Your task to perform on an android device: Open Wikipedia Image 0: 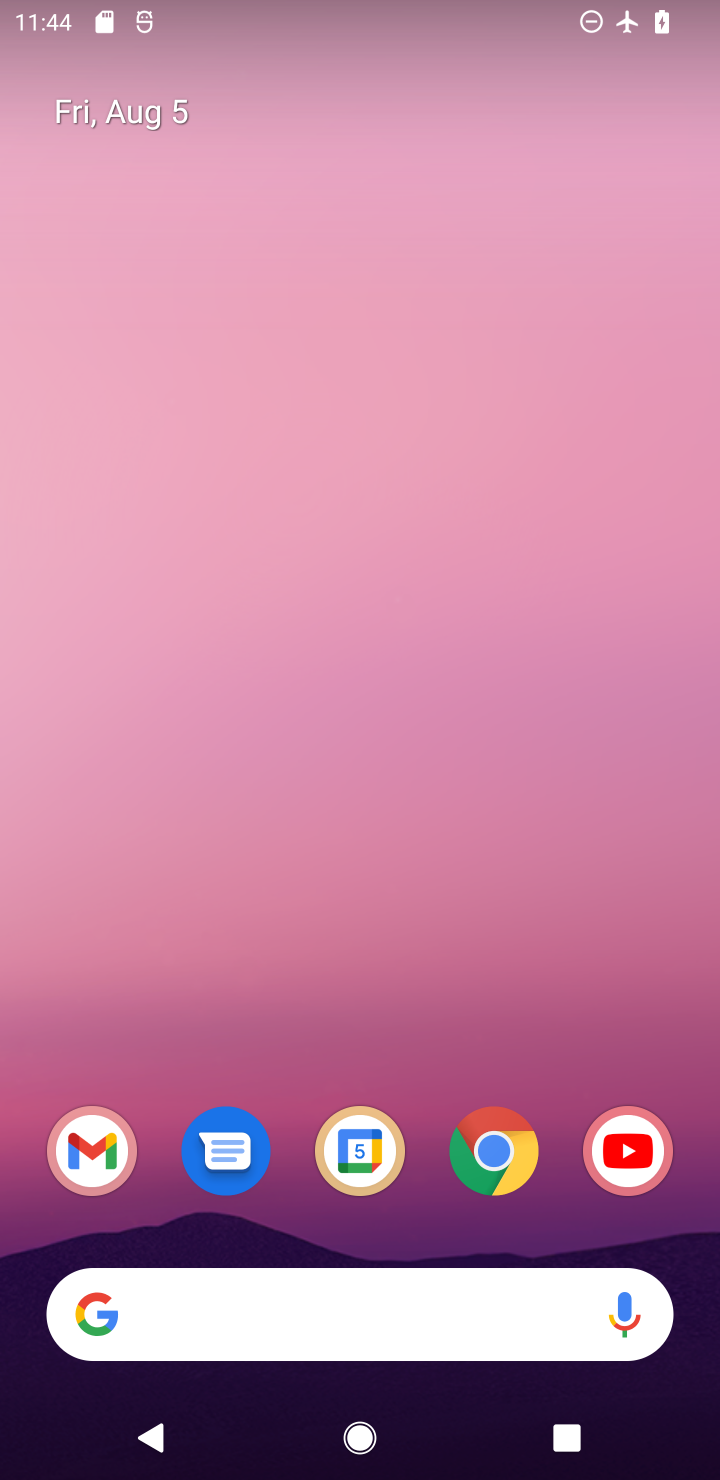
Step 0: click (524, 1127)
Your task to perform on an android device: Open Wikipedia Image 1: 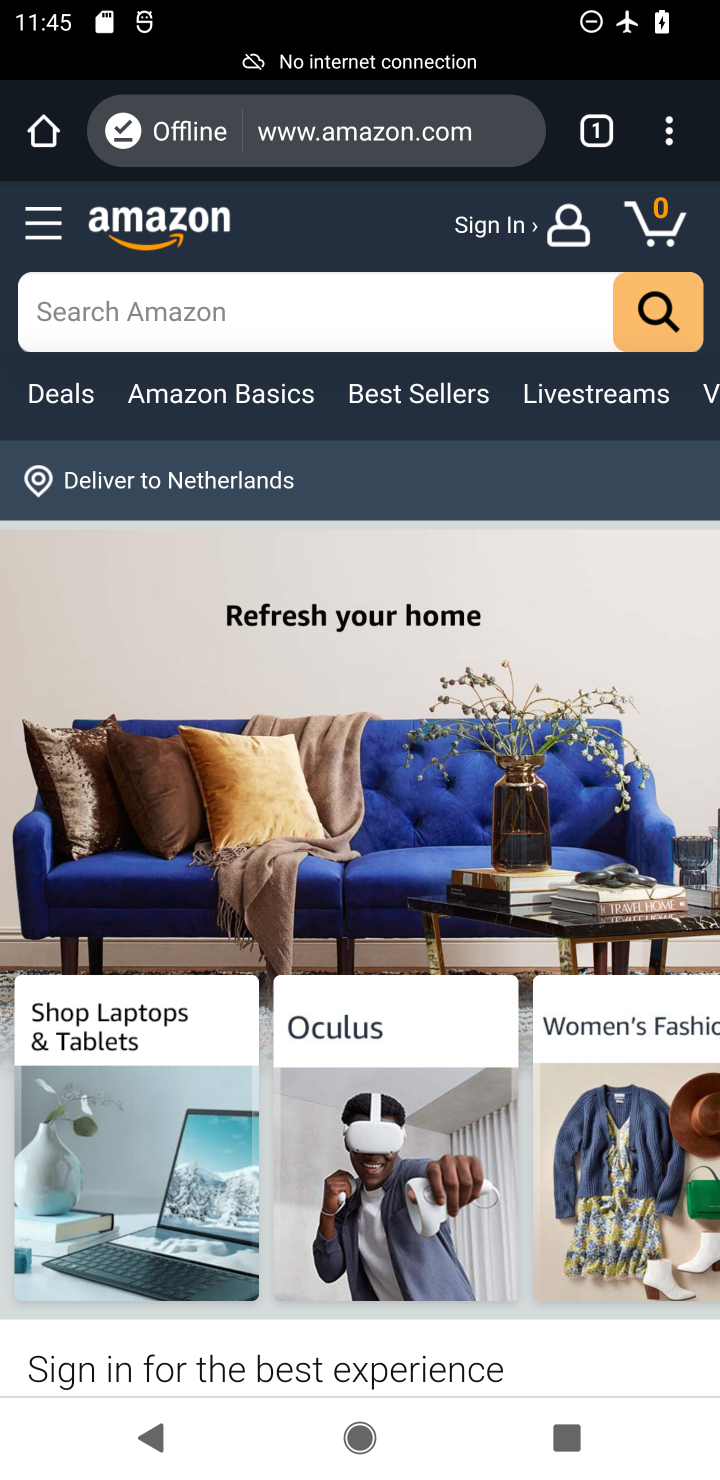
Step 1: press home button
Your task to perform on an android device: Open Wikipedia Image 2: 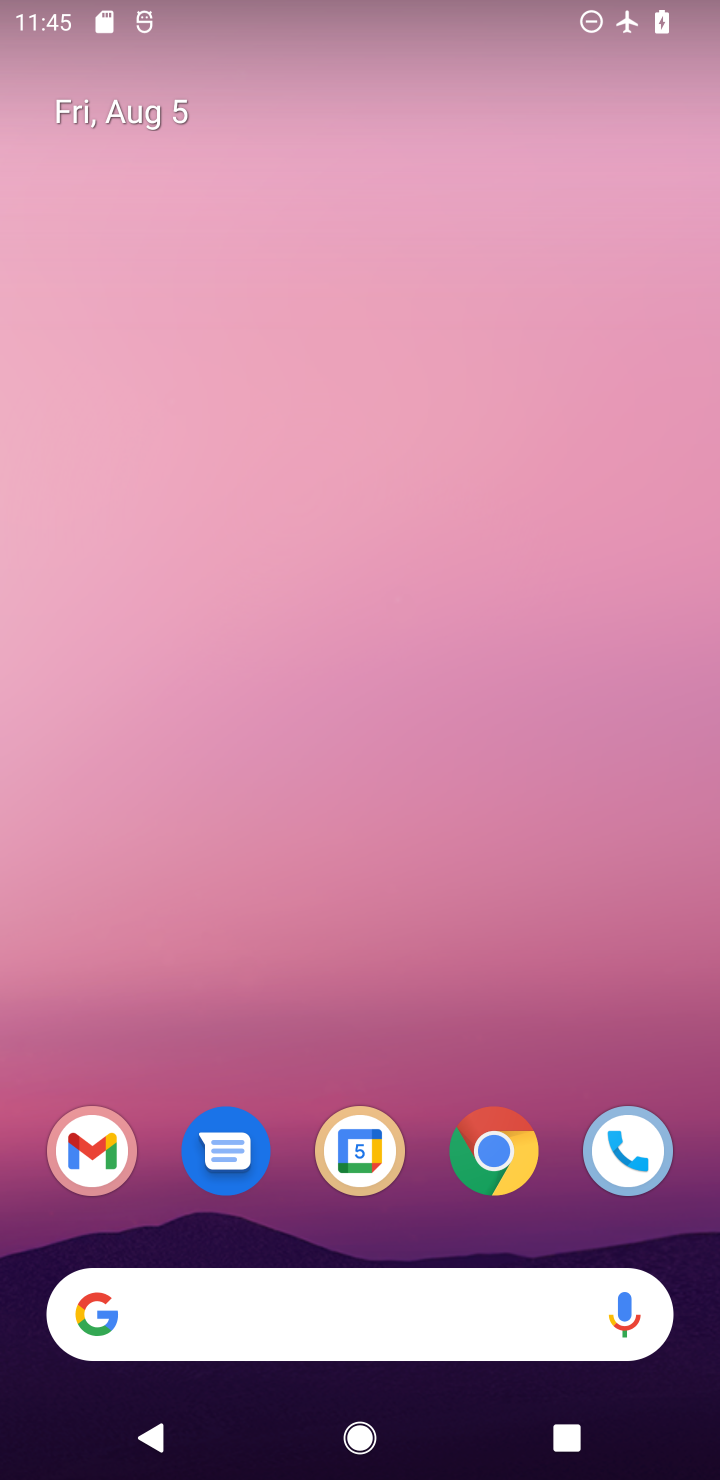
Step 2: drag from (277, 1166) to (277, 354)
Your task to perform on an android device: Open Wikipedia Image 3: 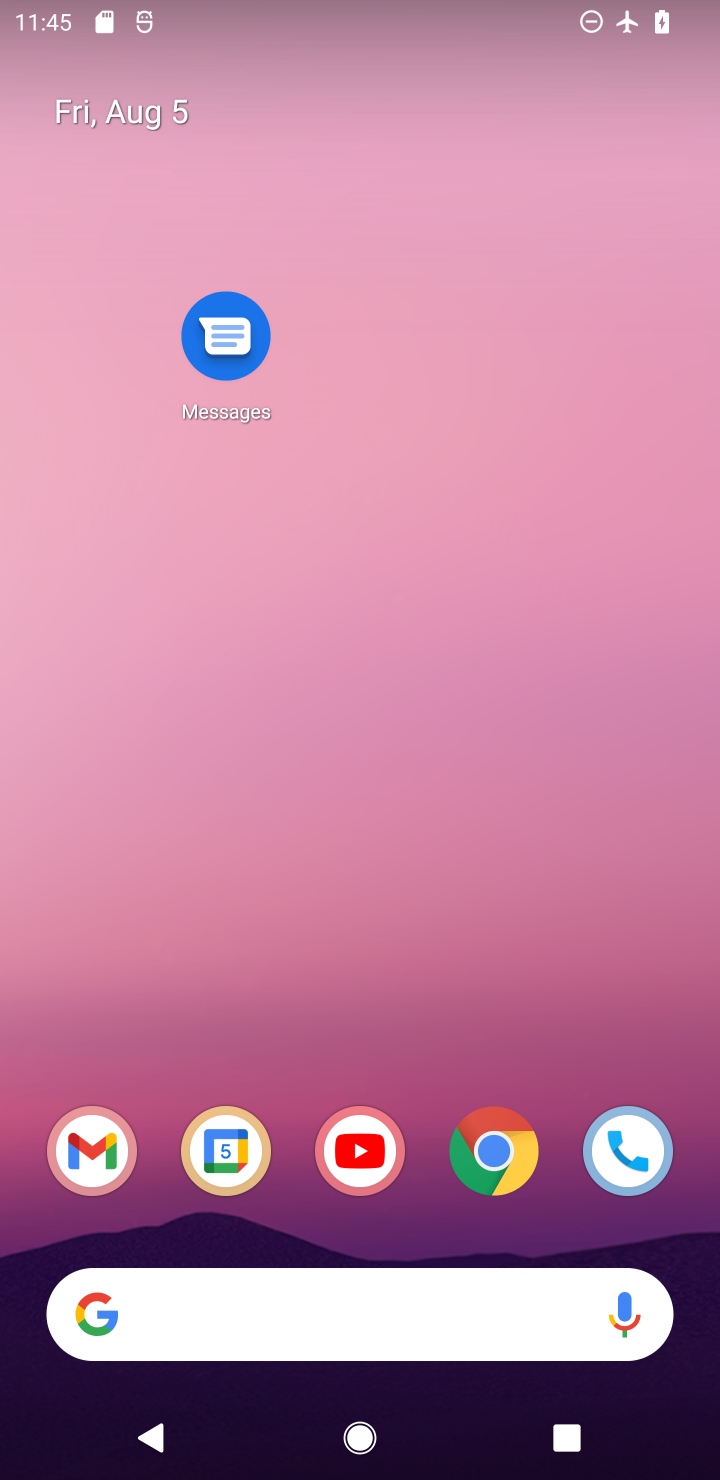
Step 3: drag from (328, 713) to (346, 369)
Your task to perform on an android device: Open Wikipedia Image 4: 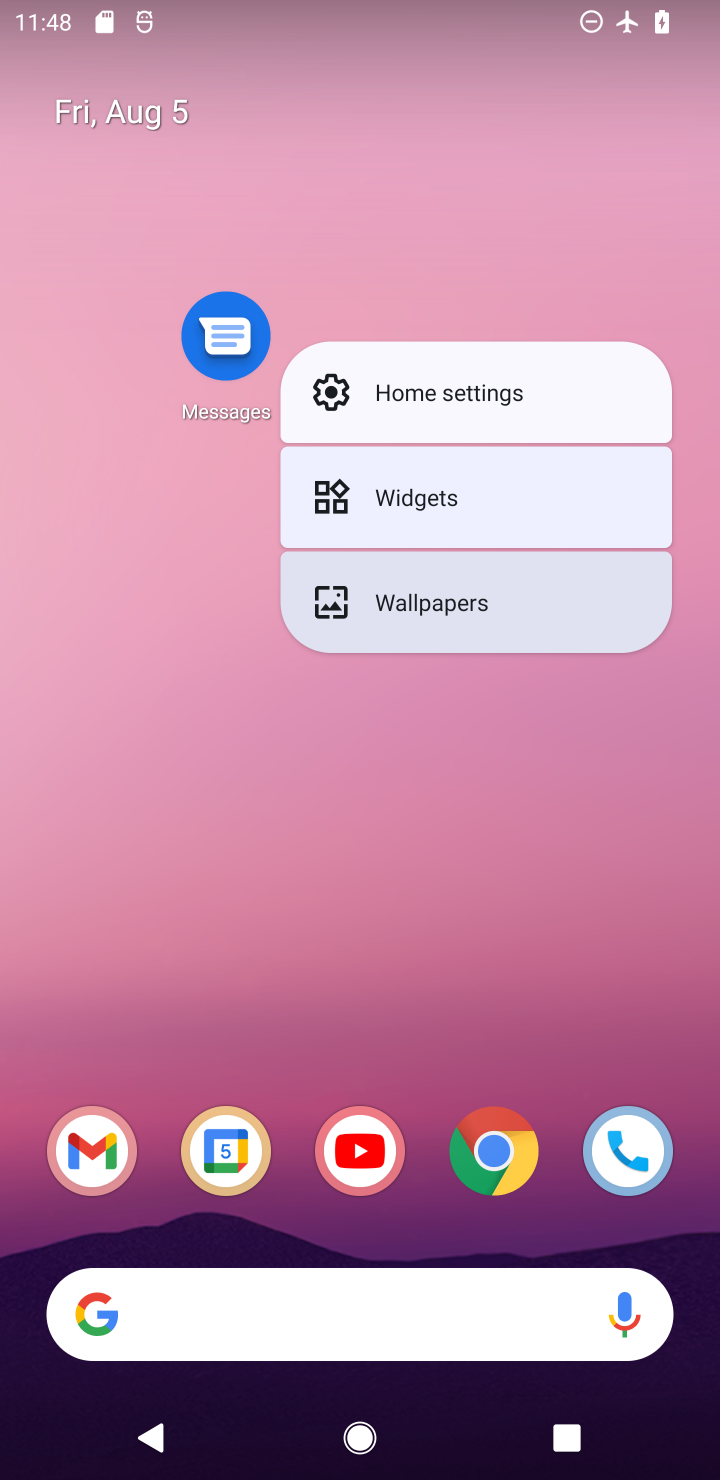
Step 4: click (482, 1158)
Your task to perform on an android device: Open Wikipedia Image 5: 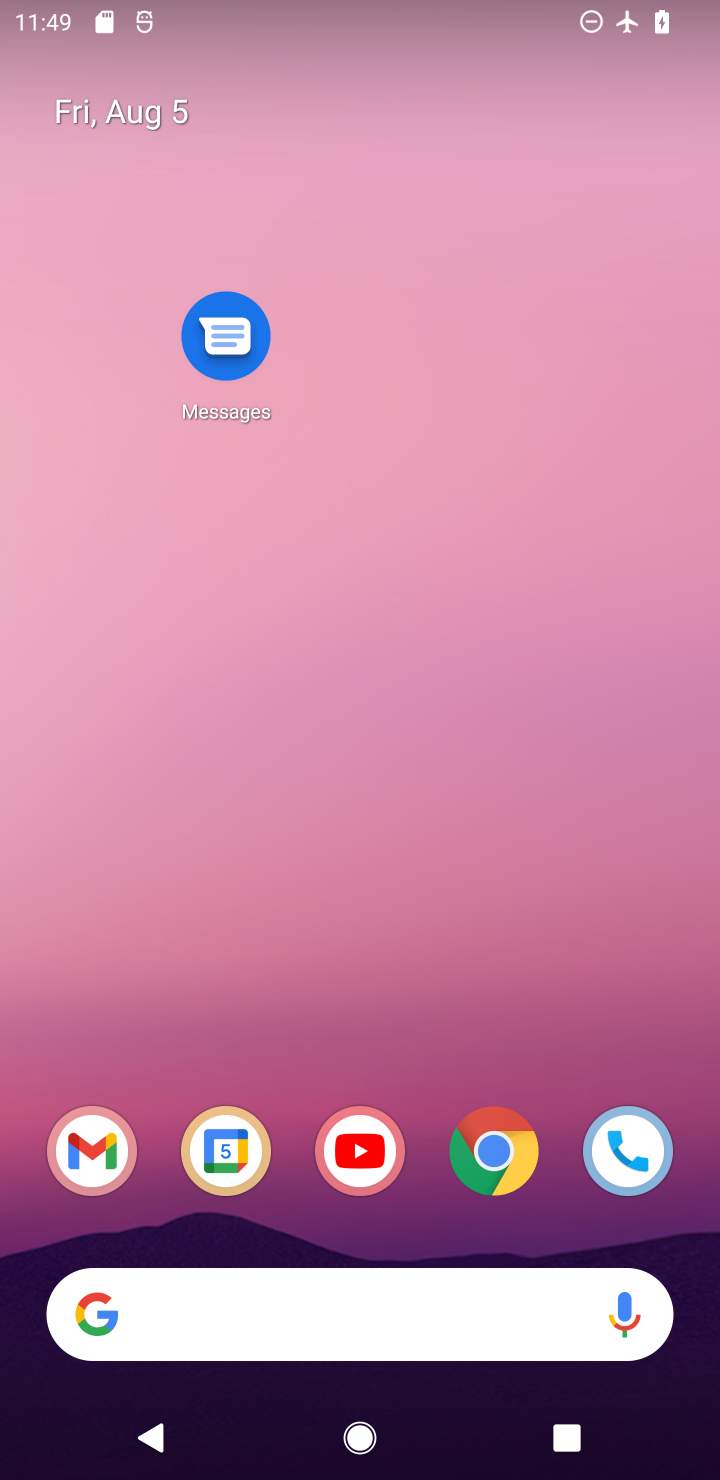
Step 5: click (488, 1146)
Your task to perform on an android device: Open Wikipedia Image 6: 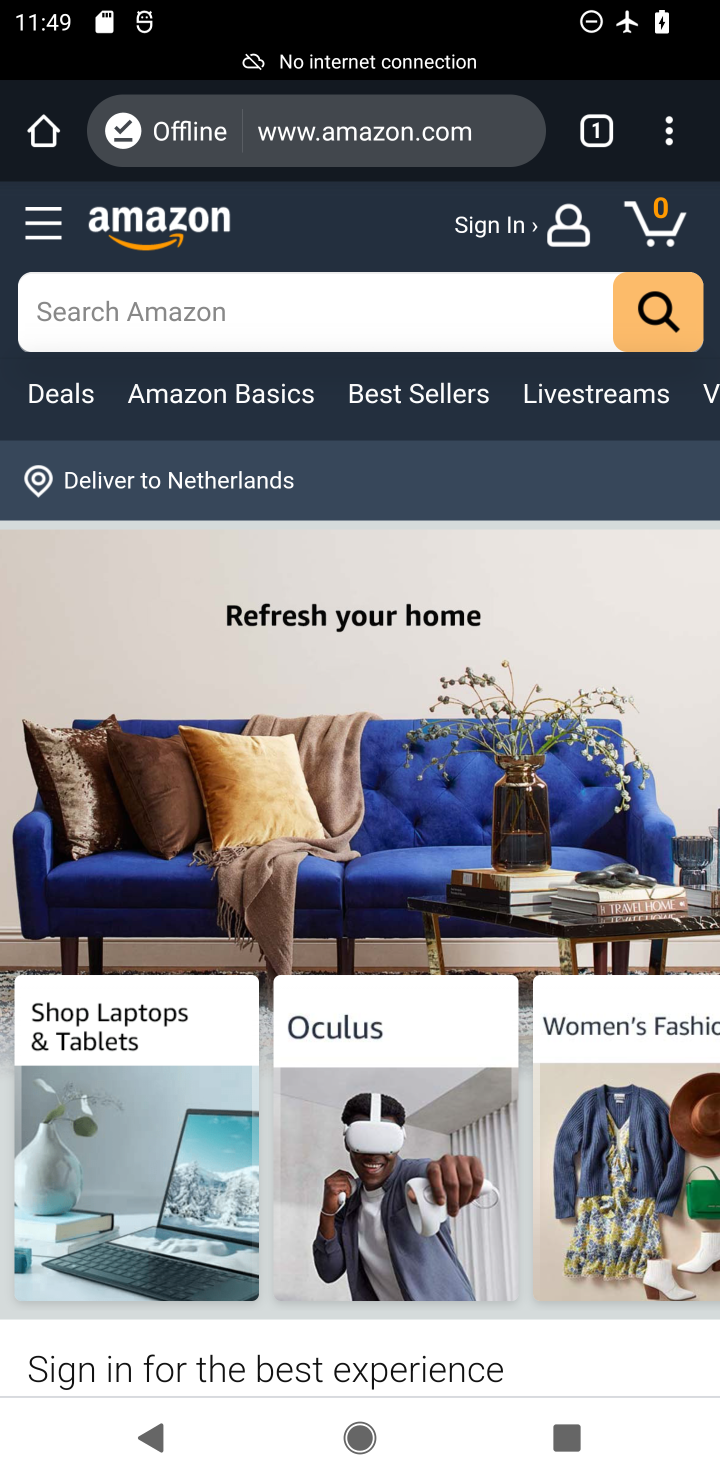
Step 6: task complete